Your task to perform on an android device: uninstall "Google Keep" Image 0: 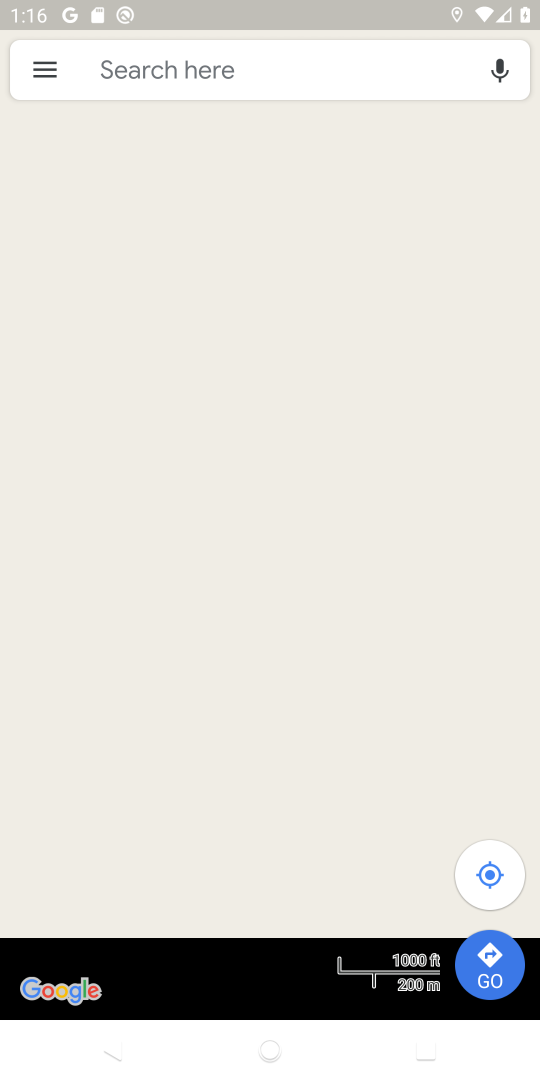
Step 0: press home button
Your task to perform on an android device: uninstall "Google Keep" Image 1: 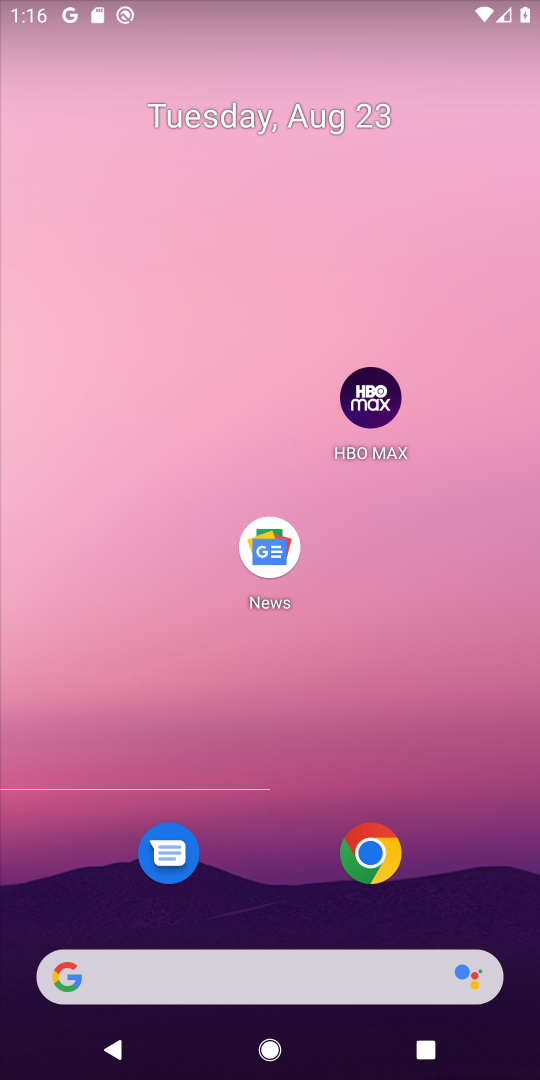
Step 1: drag from (499, 925) to (435, 151)
Your task to perform on an android device: uninstall "Google Keep" Image 2: 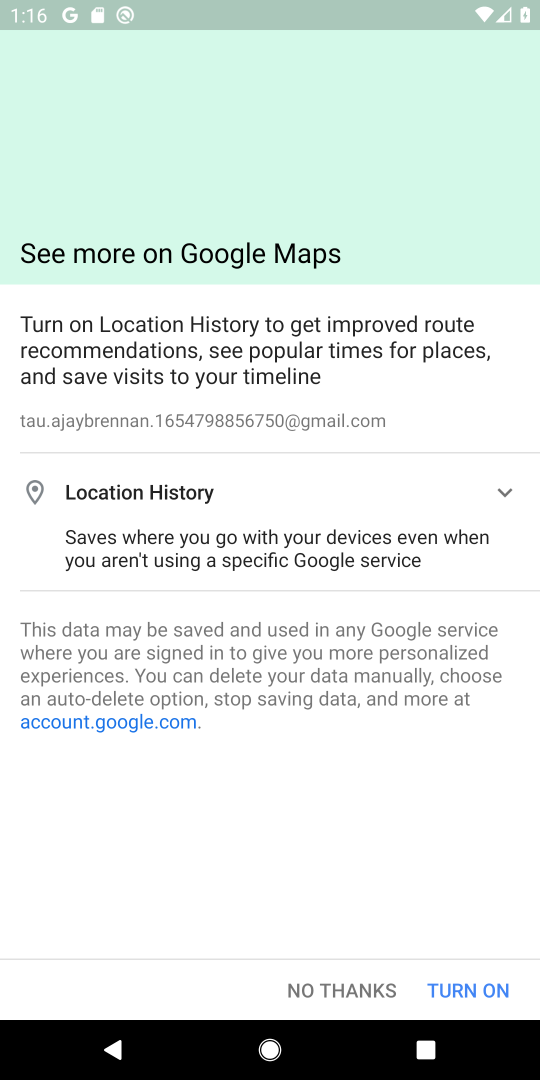
Step 2: press home button
Your task to perform on an android device: uninstall "Google Keep" Image 3: 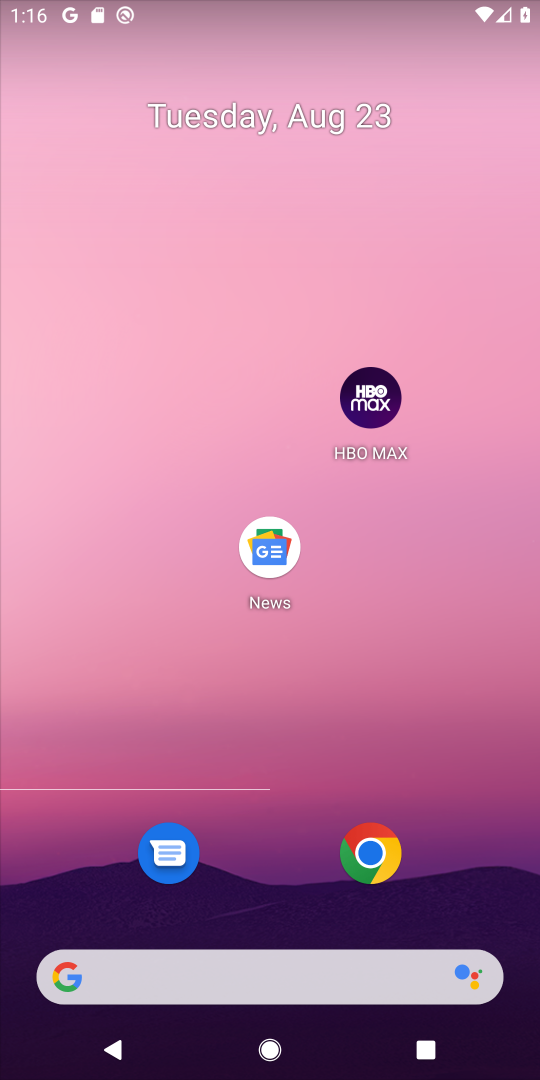
Step 3: drag from (512, 911) to (449, 88)
Your task to perform on an android device: uninstall "Google Keep" Image 4: 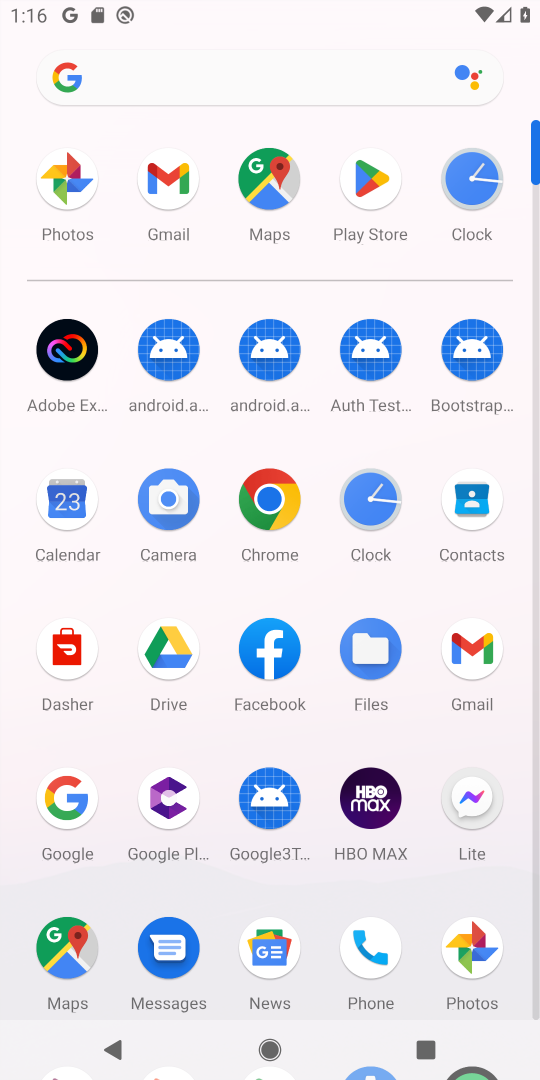
Step 4: drag from (421, 896) to (417, 530)
Your task to perform on an android device: uninstall "Google Keep" Image 5: 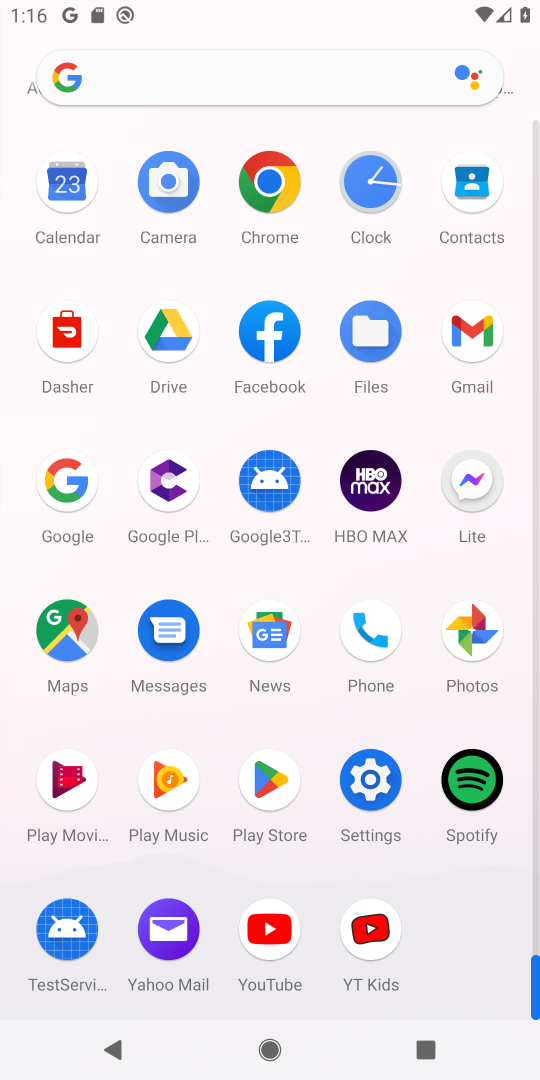
Step 5: click (275, 777)
Your task to perform on an android device: uninstall "Google Keep" Image 6: 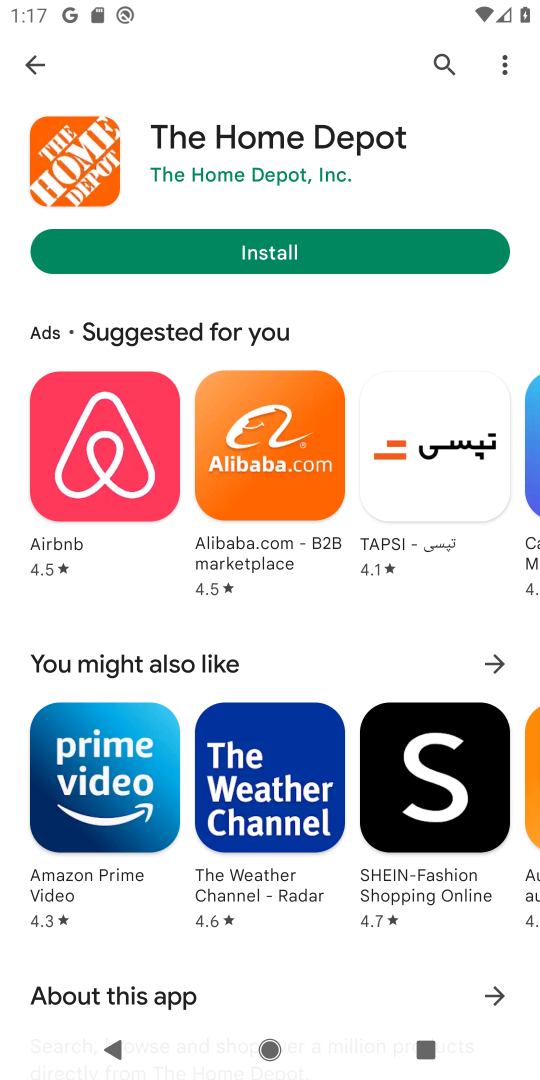
Step 6: click (442, 66)
Your task to perform on an android device: uninstall "Google Keep" Image 7: 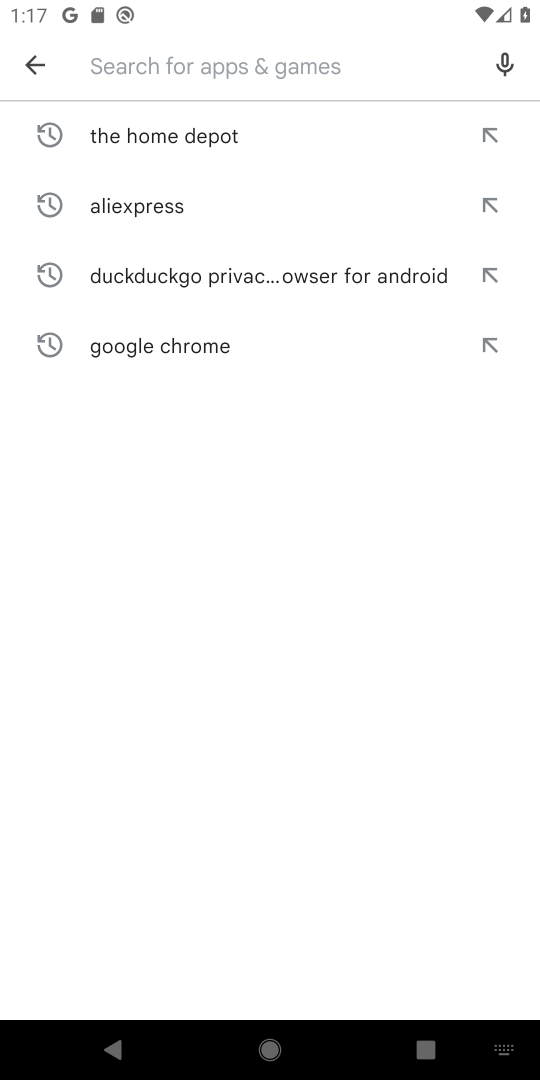
Step 7: type "Google Keep"
Your task to perform on an android device: uninstall "Google Keep" Image 8: 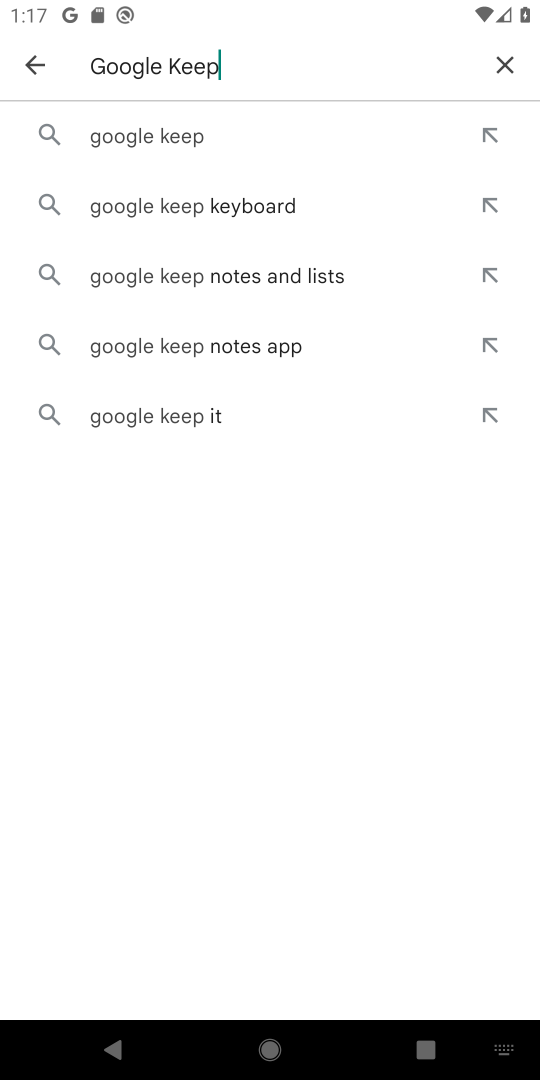
Step 8: click (125, 127)
Your task to perform on an android device: uninstall "Google Keep" Image 9: 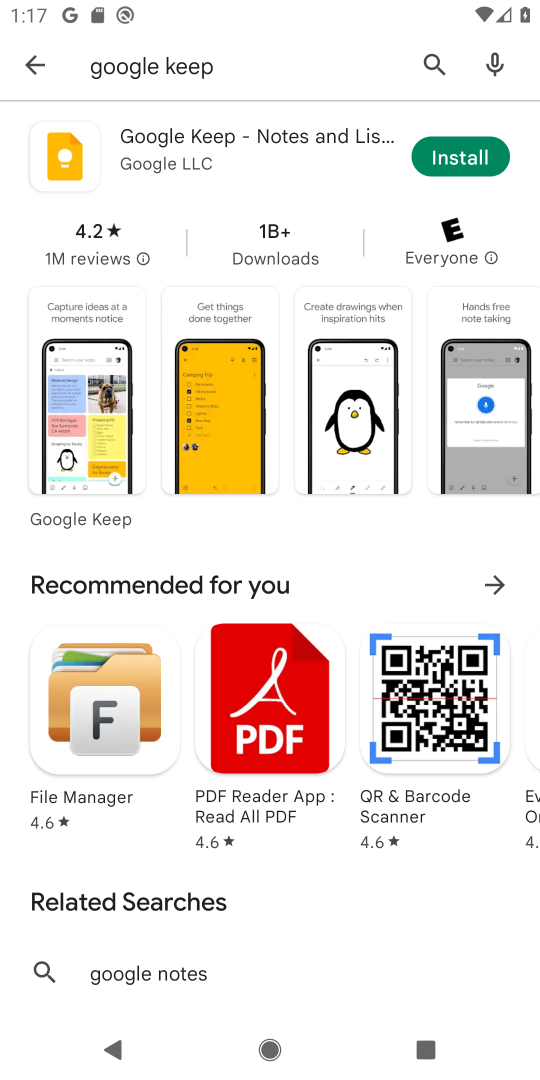
Step 9: task complete